Your task to perform on an android device: What's on my calendar today? Image 0: 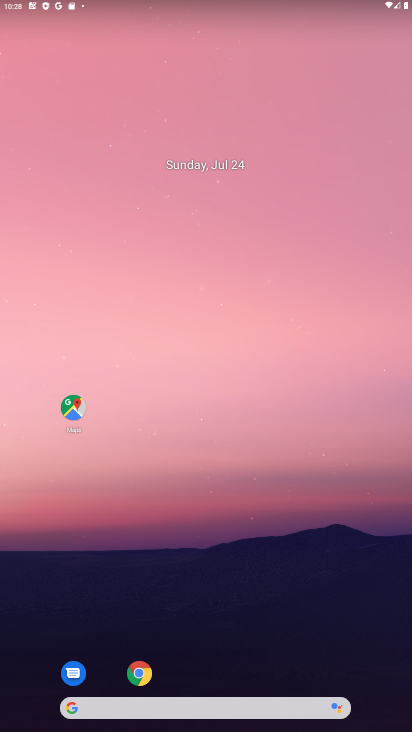
Step 0: drag from (20, 710) to (342, 68)
Your task to perform on an android device: What's on my calendar today? Image 1: 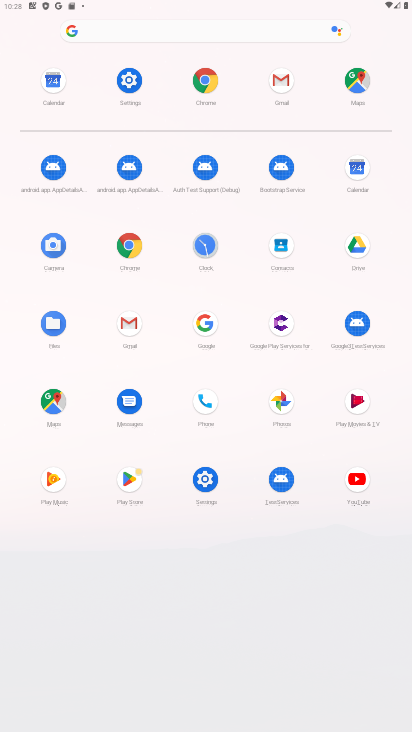
Step 1: click (360, 172)
Your task to perform on an android device: What's on my calendar today? Image 2: 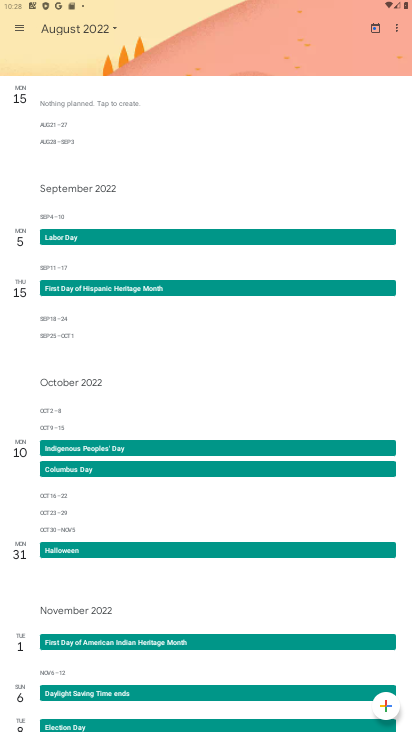
Step 2: click (112, 34)
Your task to perform on an android device: What's on my calendar today? Image 3: 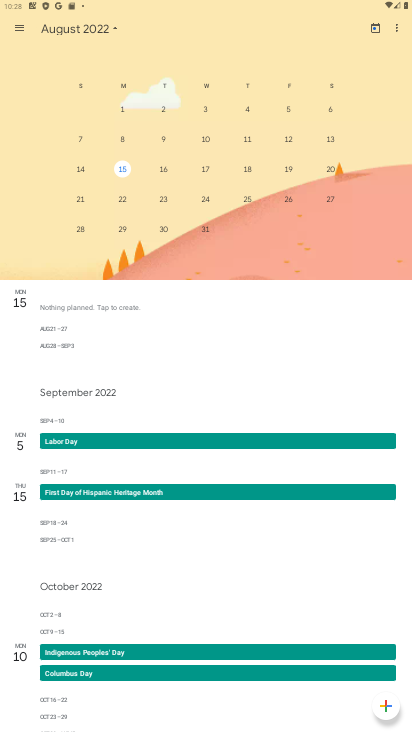
Step 3: task complete